Your task to perform on an android device: find photos in the google photos app Image 0: 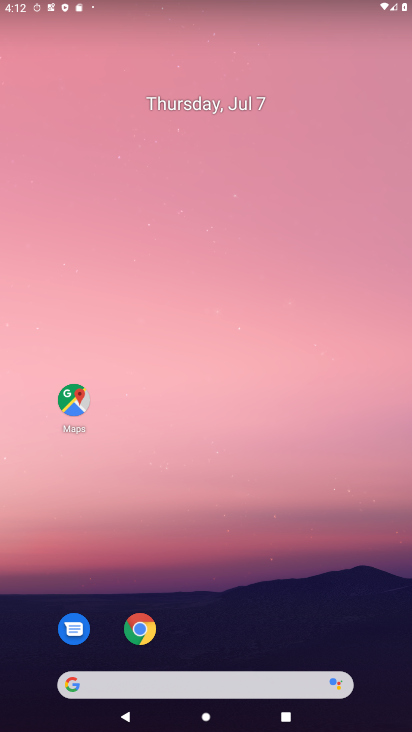
Step 0: drag from (193, 625) to (212, 9)
Your task to perform on an android device: find photos in the google photos app Image 1: 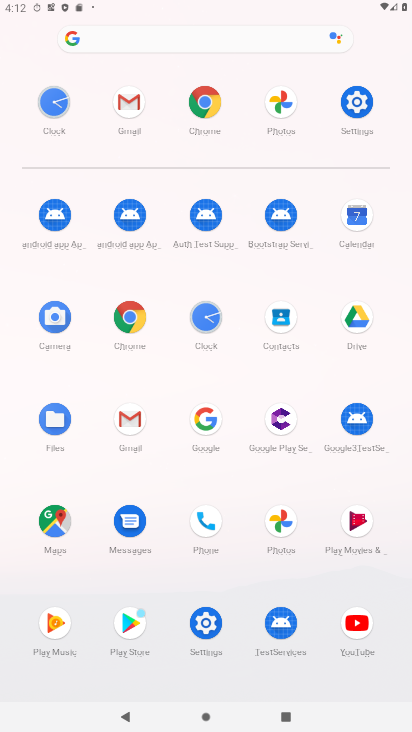
Step 1: click (285, 108)
Your task to perform on an android device: find photos in the google photos app Image 2: 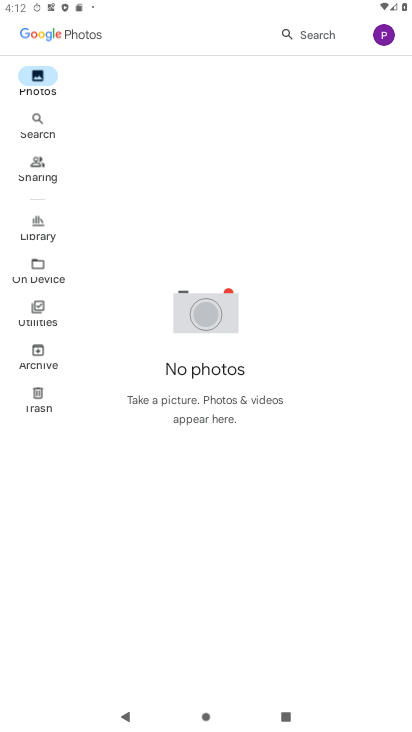
Step 2: task complete